Your task to perform on an android device: snooze an email in the gmail app Image 0: 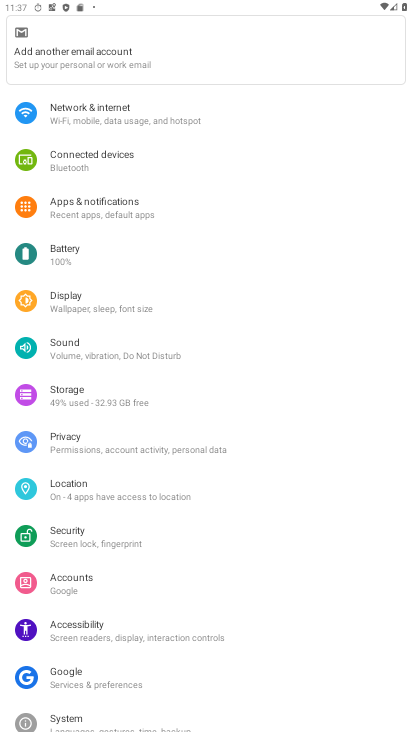
Step 0: press home button
Your task to perform on an android device: snooze an email in the gmail app Image 1: 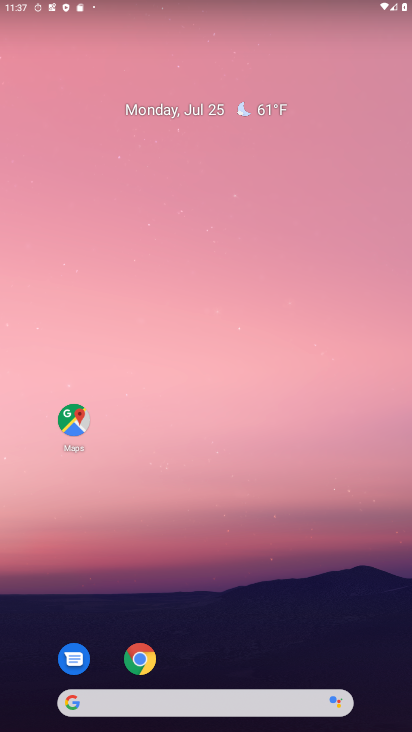
Step 1: drag from (29, 697) to (331, 4)
Your task to perform on an android device: snooze an email in the gmail app Image 2: 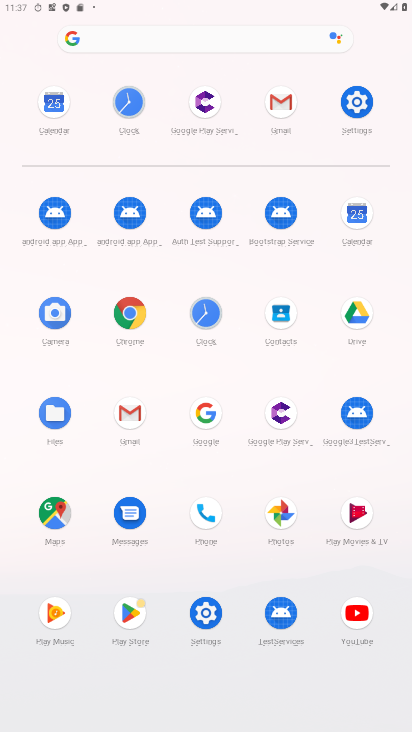
Step 2: click (128, 424)
Your task to perform on an android device: snooze an email in the gmail app Image 3: 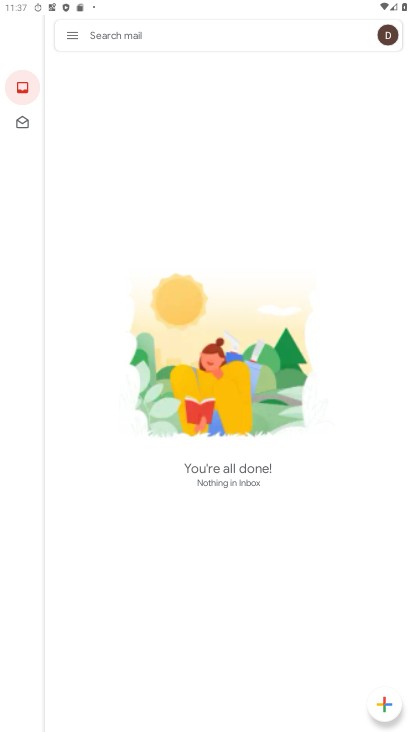
Step 3: click (71, 43)
Your task to perform on an android device: snooze an email in the gmail app Image 4: 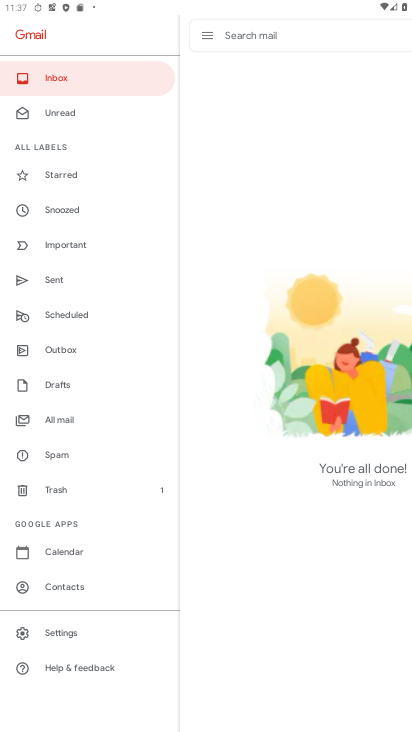
Step 4: click (68, 212)
Your task to perform on an android device: snooze an email in the gmail app Image 5: 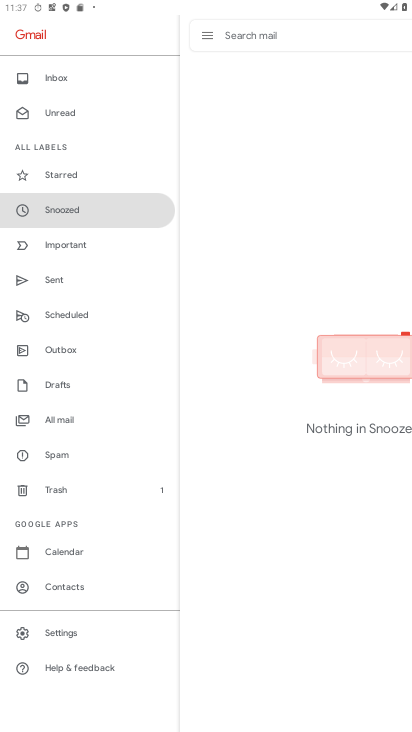
Step 5: task complete